Your task to perform on an android device: turn off airplane mode Image 0: 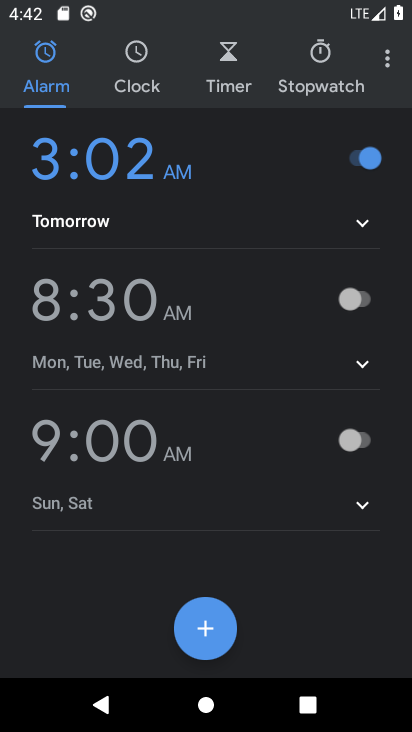
Step 0: press home button
Your task to perform on an android device: turn off airplane mode Image 1: 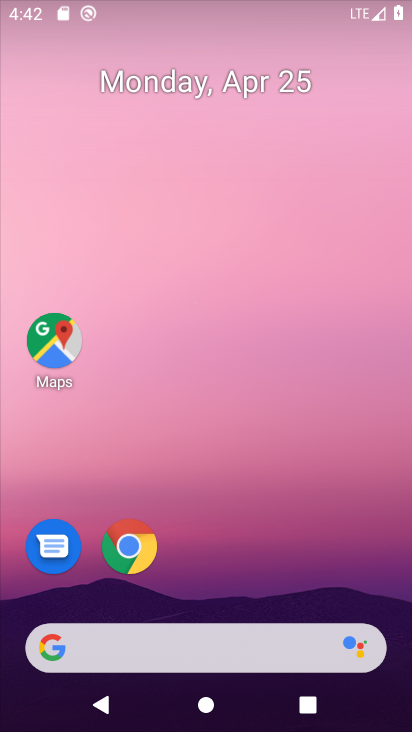
Step 1: drag from (315, 575) to (371, 46)
Your task to perform on an android device: turn off airplane mode Image 2: 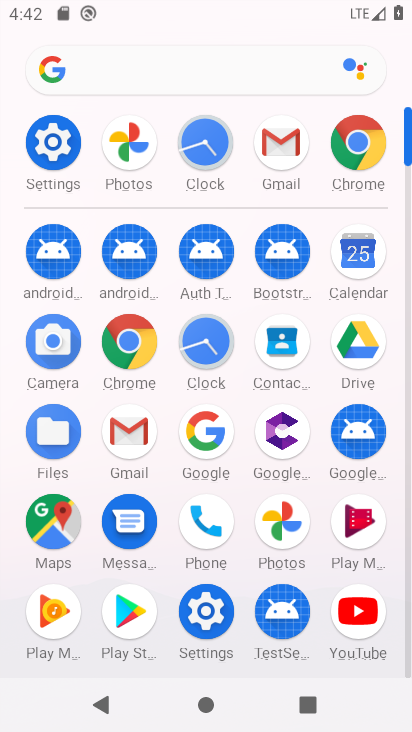
Step 2: click (47, 144)
Your task to perform on an android device: turn off airplane mode Image 3: 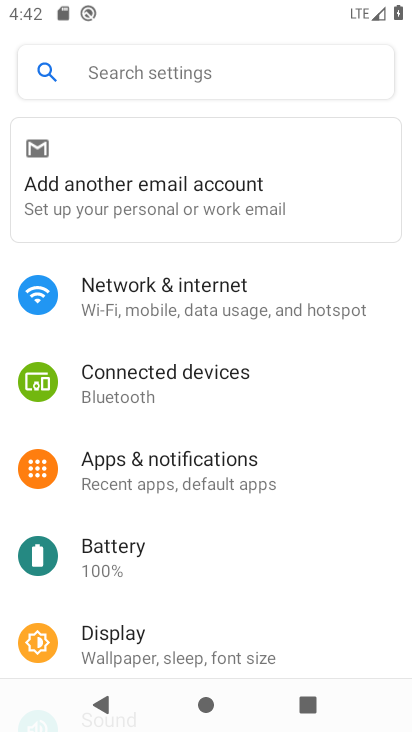
Step 3: click (164, 304)
Your task to perform on an android device: turn off airplane mode Image 4: 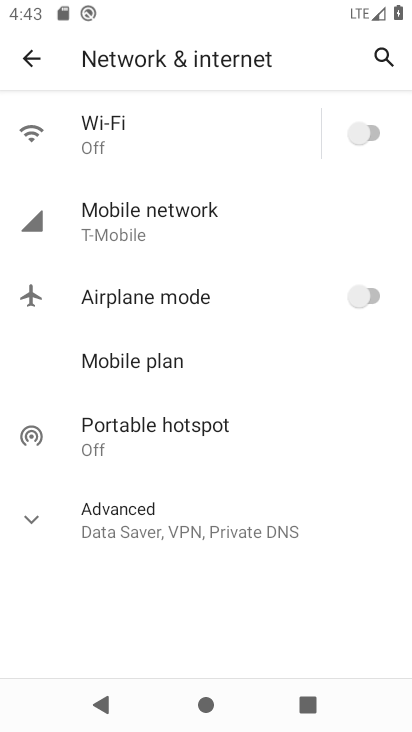
Step 4: task complete